Your task to perform on an android device: Is it going to rain this weekend? Image 0: 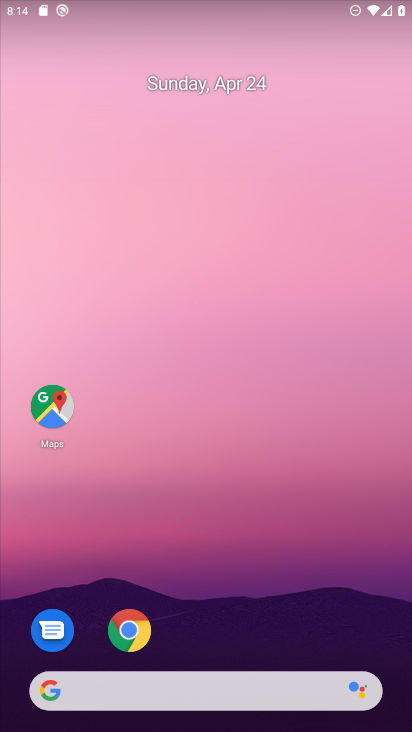
Step 0: click (129, 636)
Your task to perform on an android device: Is it going to rain this weekend? Image 1: 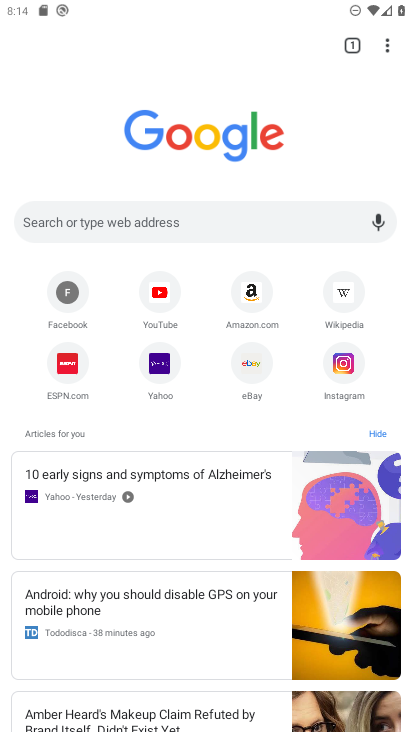
Step 1: click (116, 221)
Your task to perform on an android device: Is it going to rain this weekend? Image 2: 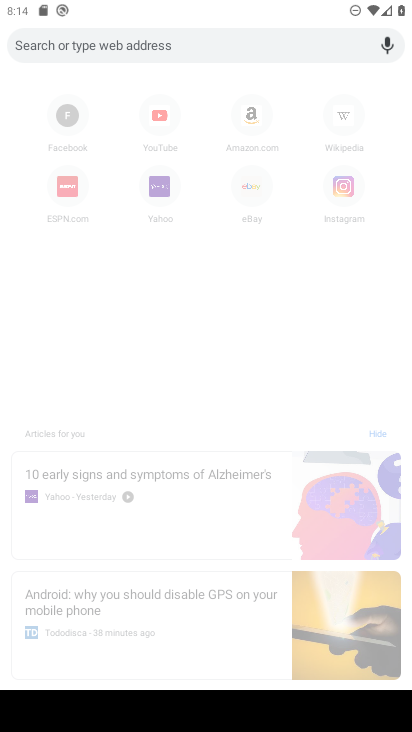
Step 2: type "Is it going to rain this weekend?"
Your task to perform on an android device: Is it going to rain this weekend? Image 3: 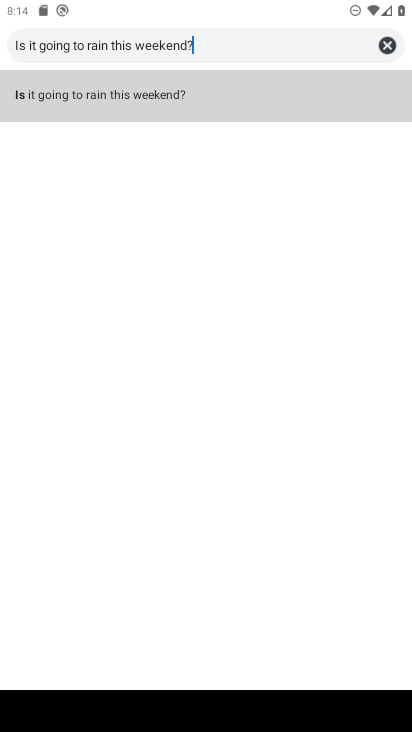
Step 3: type ""
Your task to perform on an android device: Is it going to rain this weekend? Image 4: 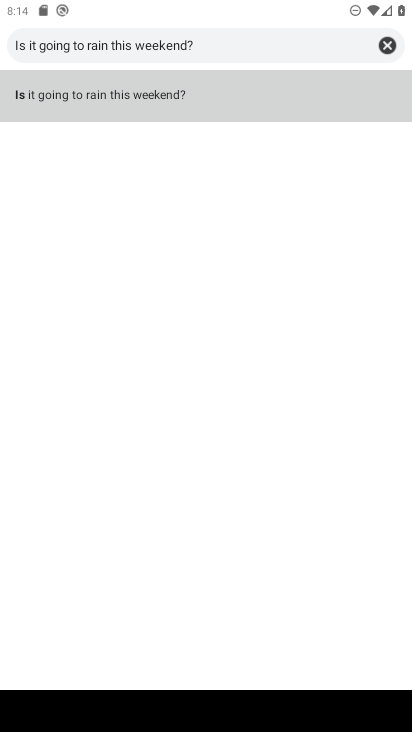
Step 4: click (30, 84)
Your task to perform on an android device: Is it going to rain this weekend? Image 5: 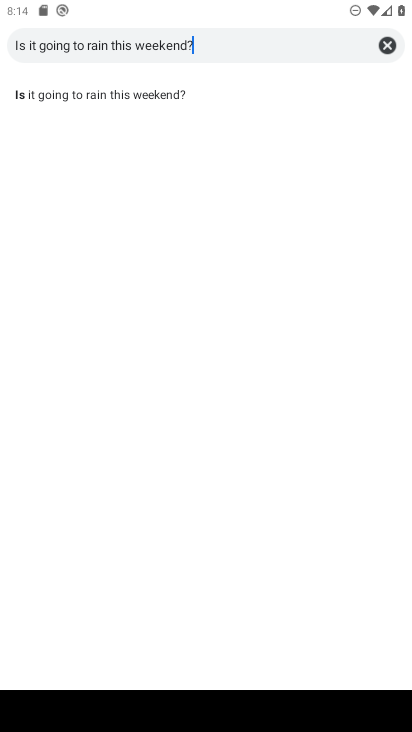
Step 5: click (30, 84)
Your task to perform on an android device: Is it going to rain this weekend? Image 6: 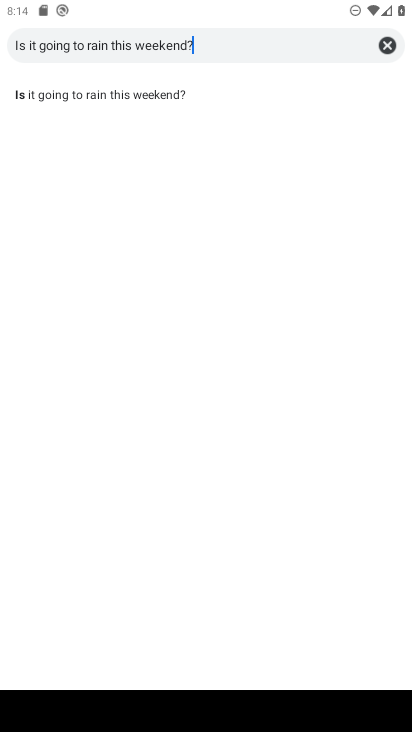
Step 6: click (47, 98)
Your task to perform on an android device: Is it going to rain this weekend? Image 7: 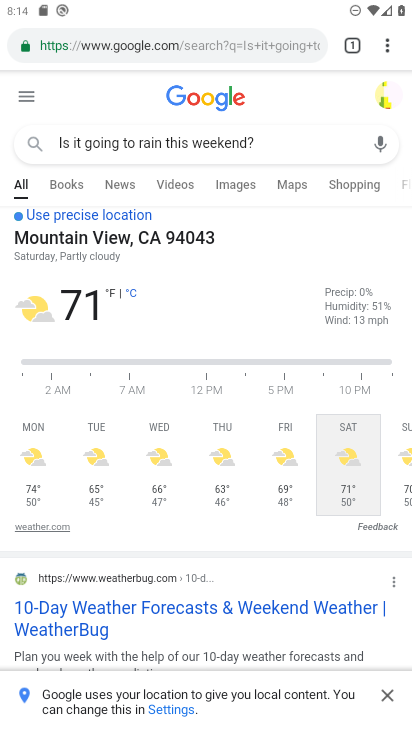
Step 7: task complete